Your task to perform on an android device: turn on the 12-hour format for clock Image 0: 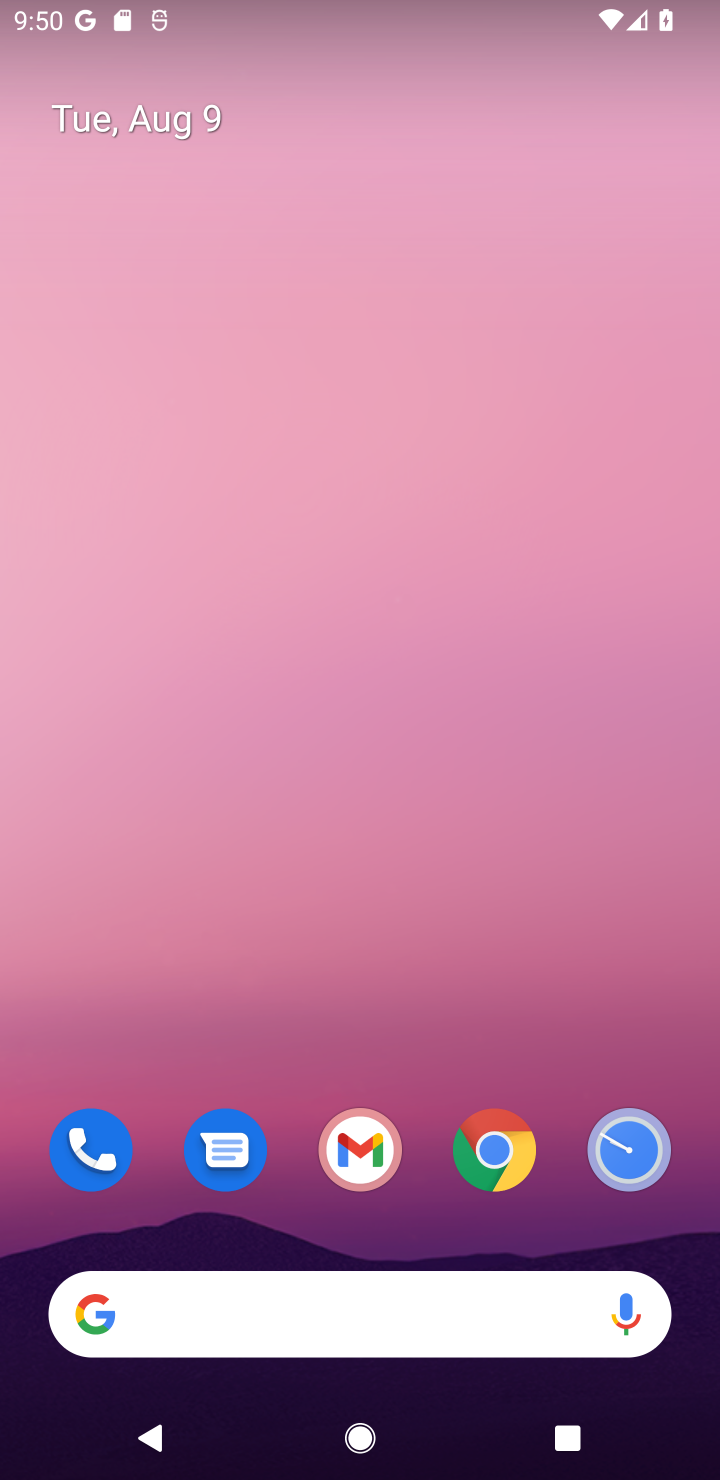
Step 0: drag from (262, 1143) to (444, 178)
Your task to perform on an android device: turn on the 12-hour format for clock Image 1: 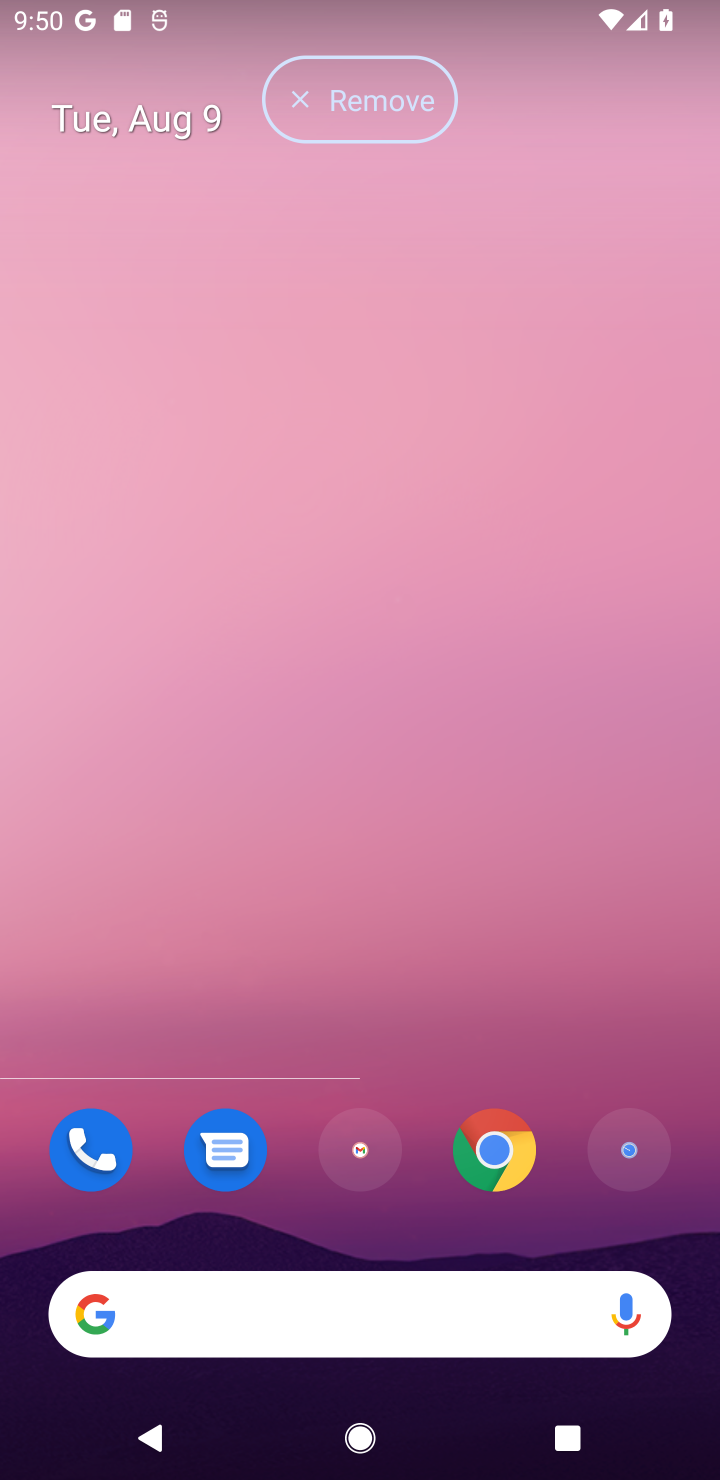
Step 1: click (333, 482)
Your task to perform on an android device: turn on the 12-hour format for clock Image 2: 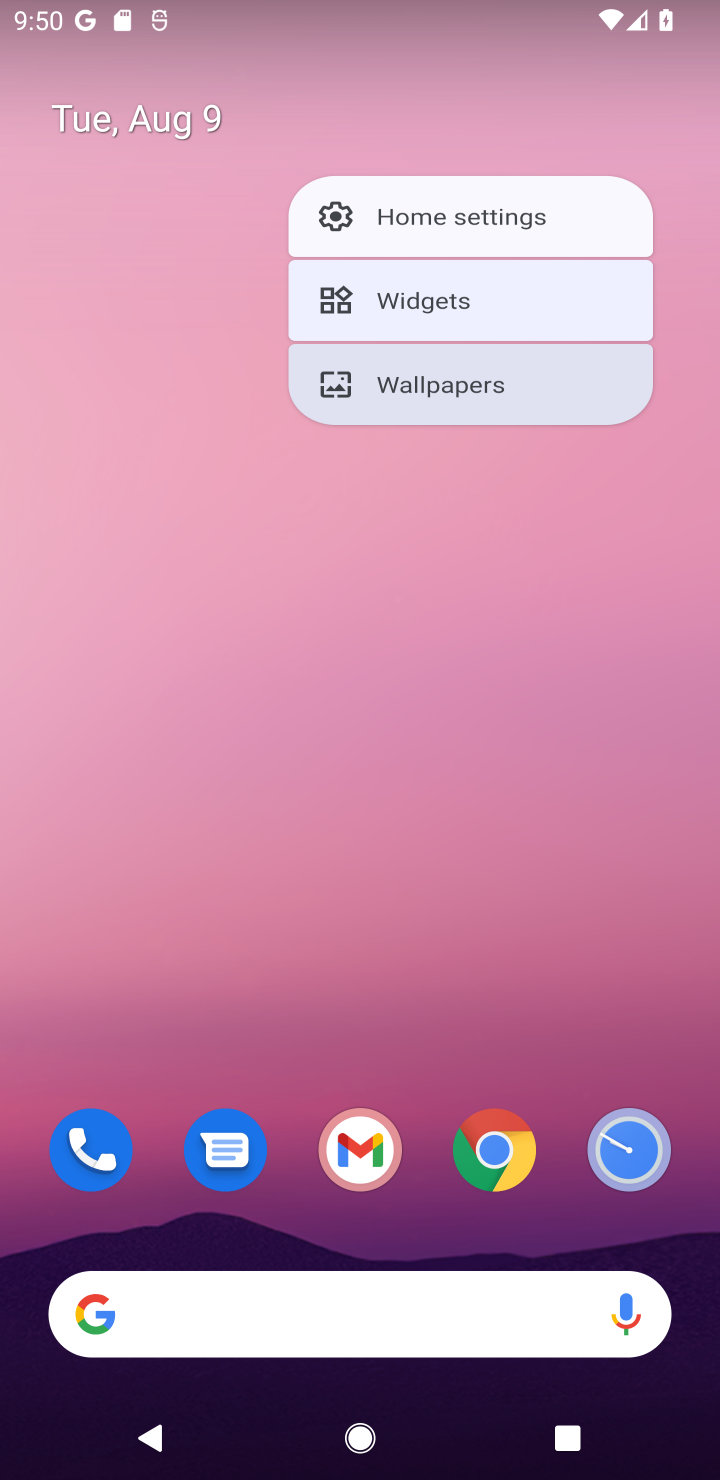
Step 2: drag from (308, 1255) to (461, 275)
Your task to perform on an android device: turn on the 12-hour format for clock Image 3: 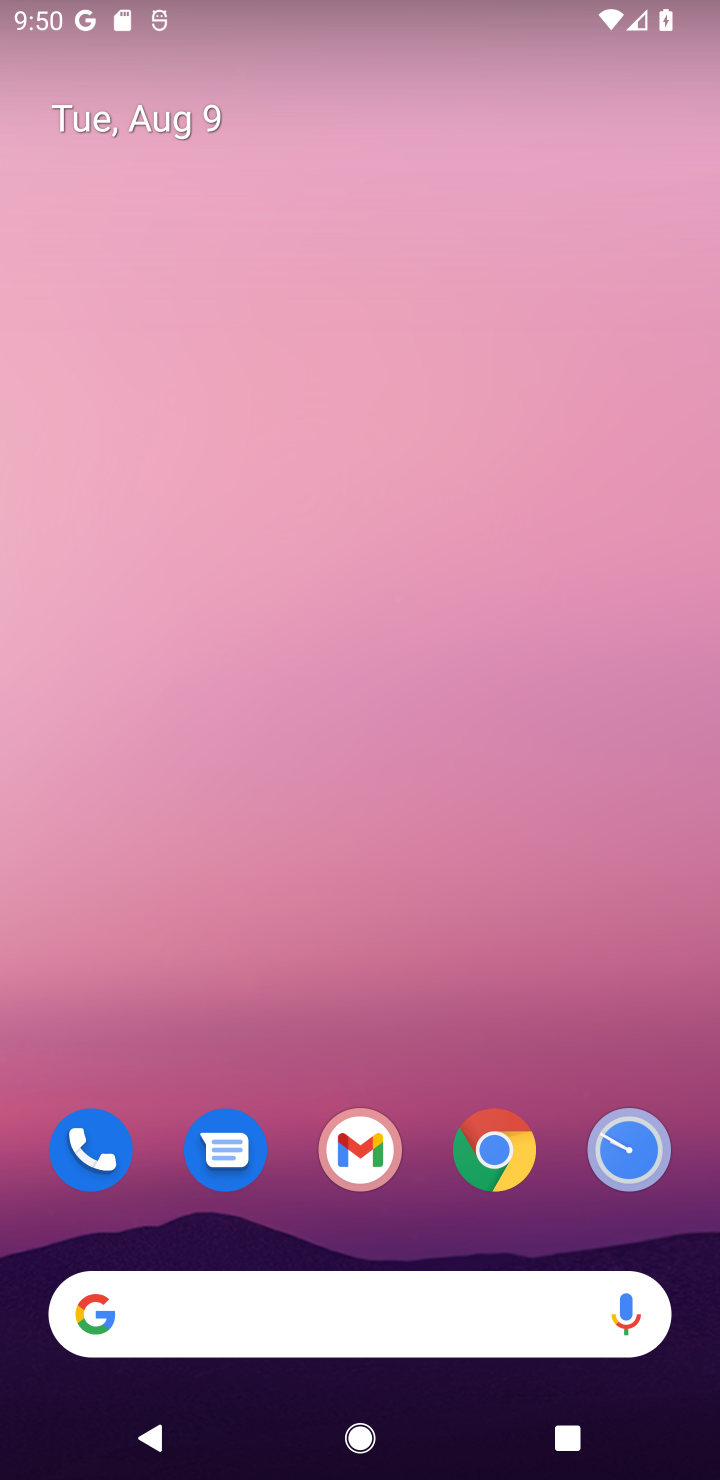
Step 3: drag from (363, 1121) to (418, 302)
Your task to perform on an android device: turn on the 12-hour format for clock Image 4: 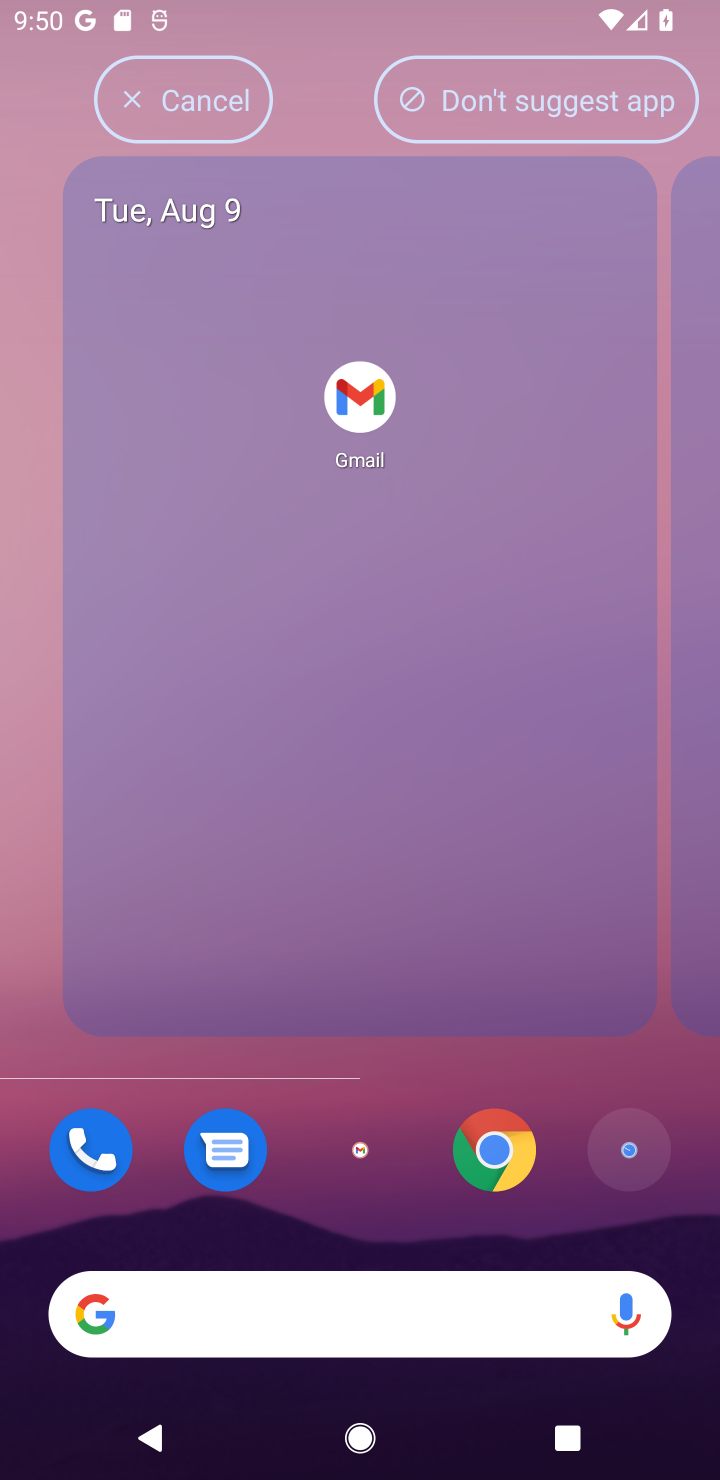
Step 4: click (319, 403)
Your task to perform on an android device: turn on the 12-hour format for clock Image 5: 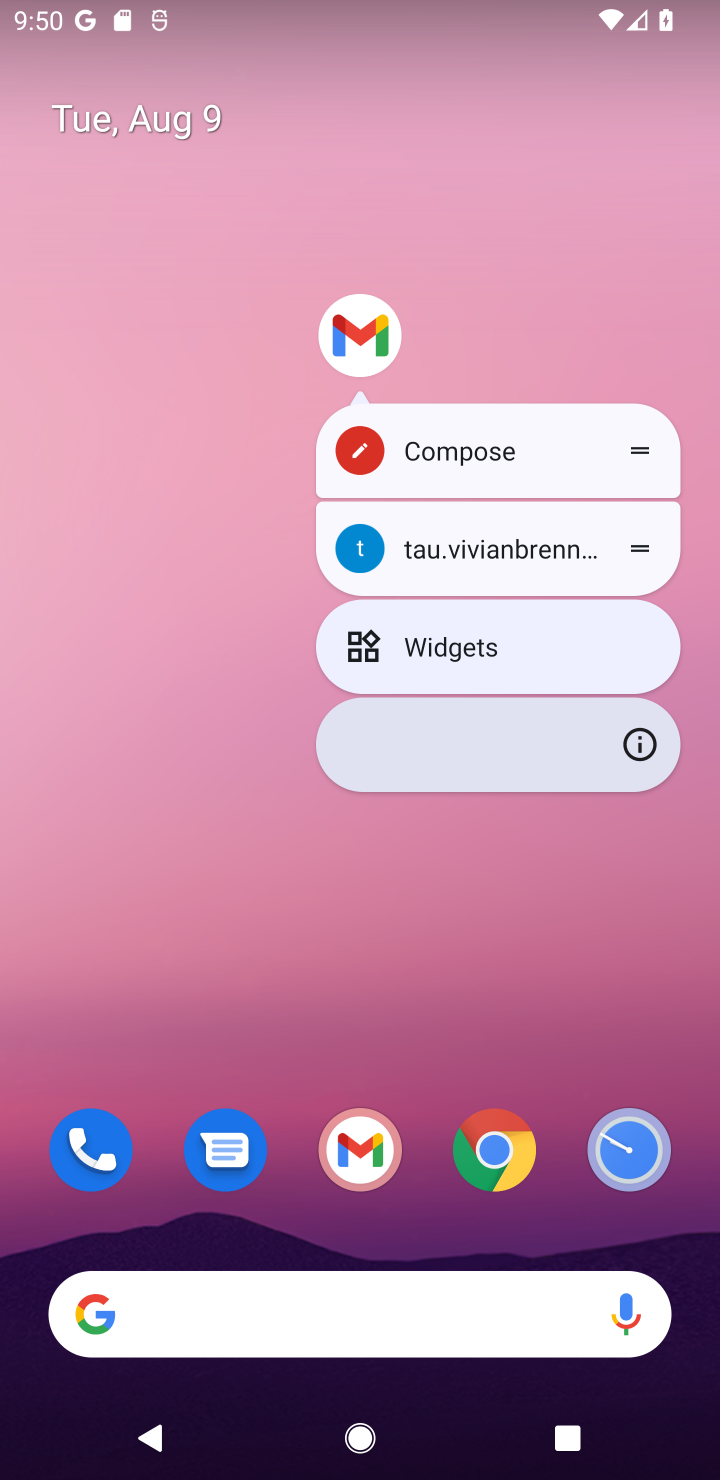
Step 5: click (256, 957)
Your task to perform on an android device: turn on the 12-hour format for clock Image 6: 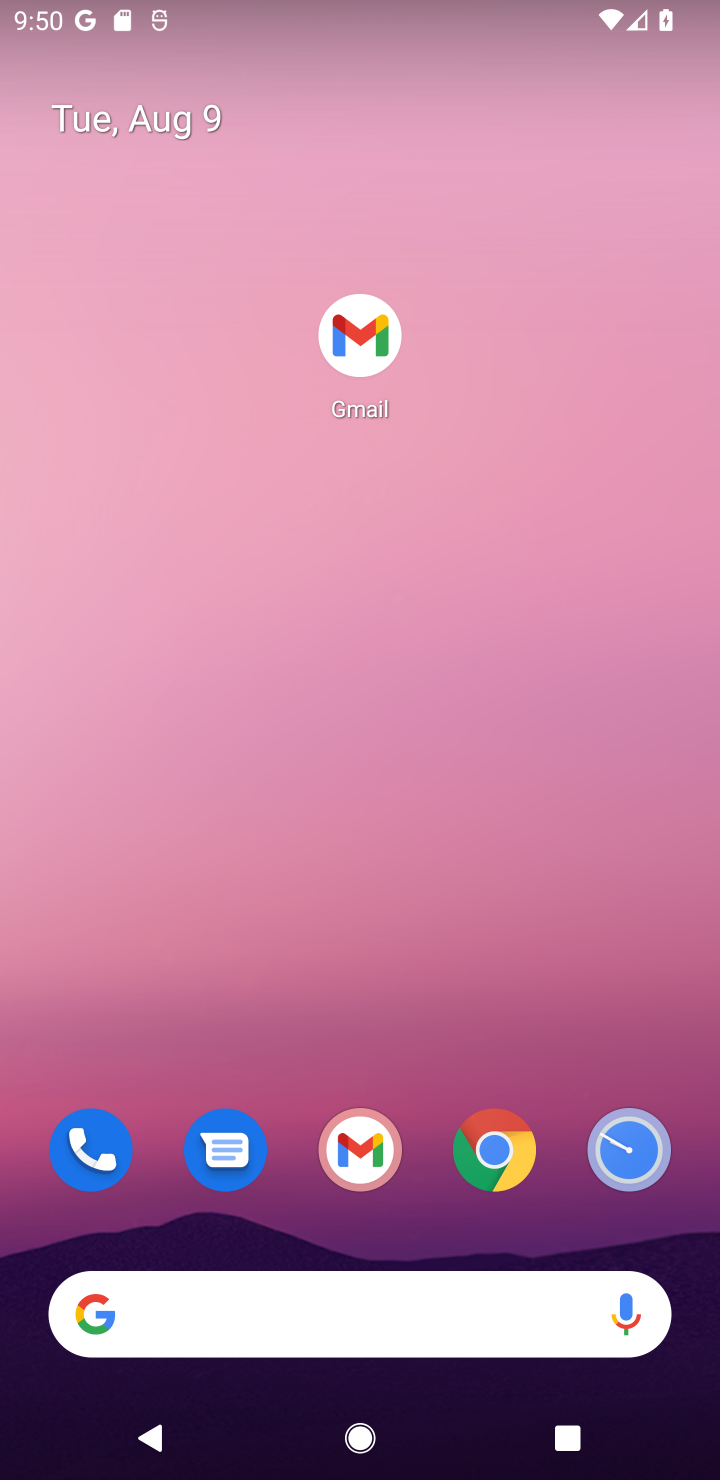
Step 6: drag from (376, 1229) to (366, 238)
Your task to perform on an android device: turn on the 12-hour format for clock Image 7: 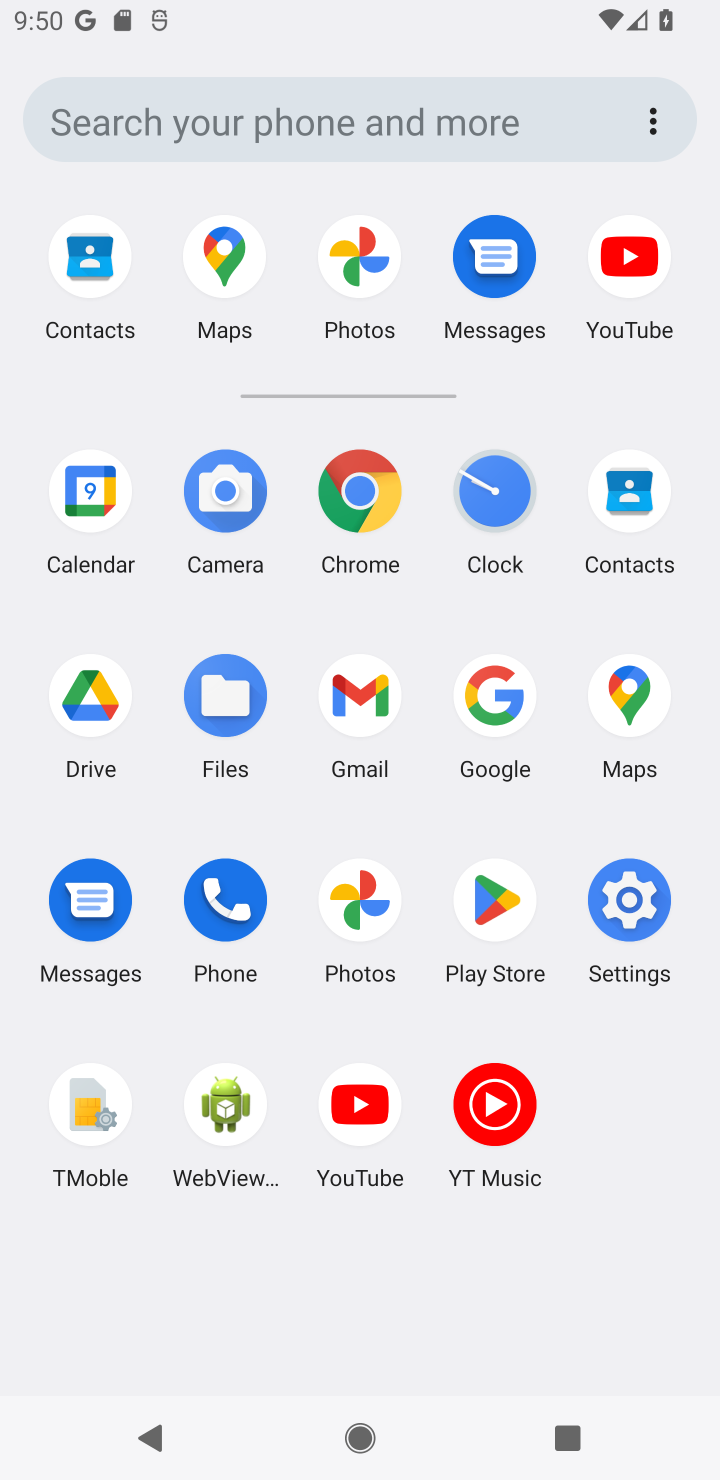
Step 7: click (466, 510)
Your task to perform on an android device: turn on the 12-hour format for clock Image 8: 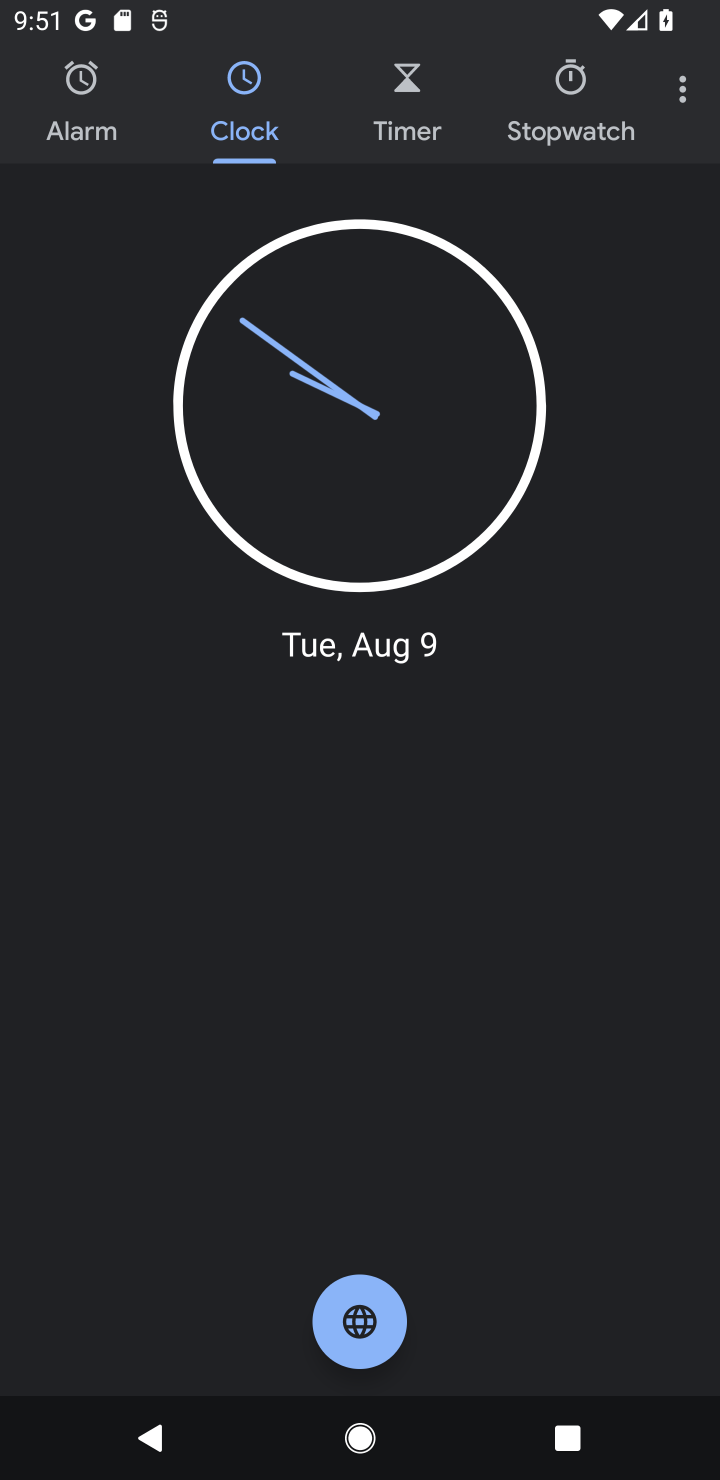
Step 8: click (680, 91)
Your task to perform on an android device: turn on the 12-hour format for clock Image 9: 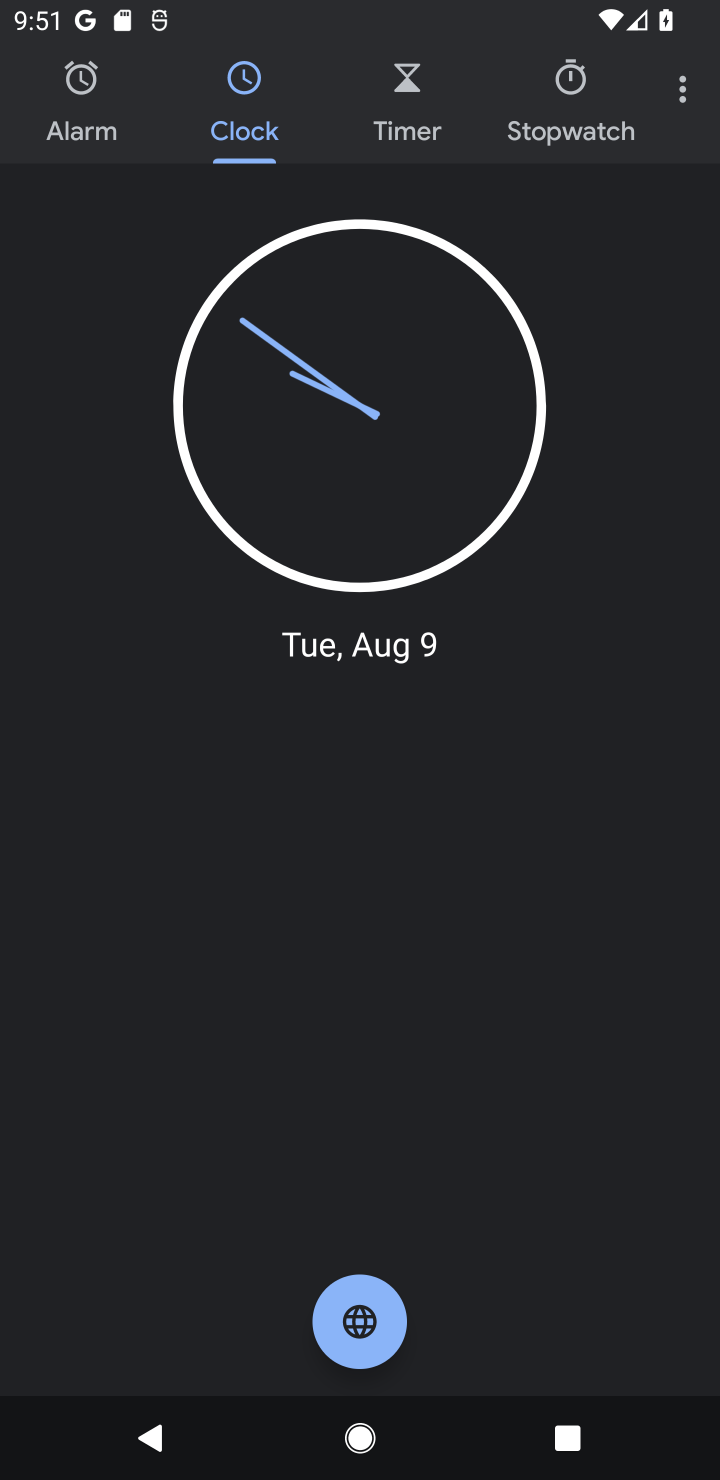
Step 9: click (680, 107)
Your task to perform on an android device: turn on the 12-hour format for clock Image 10: 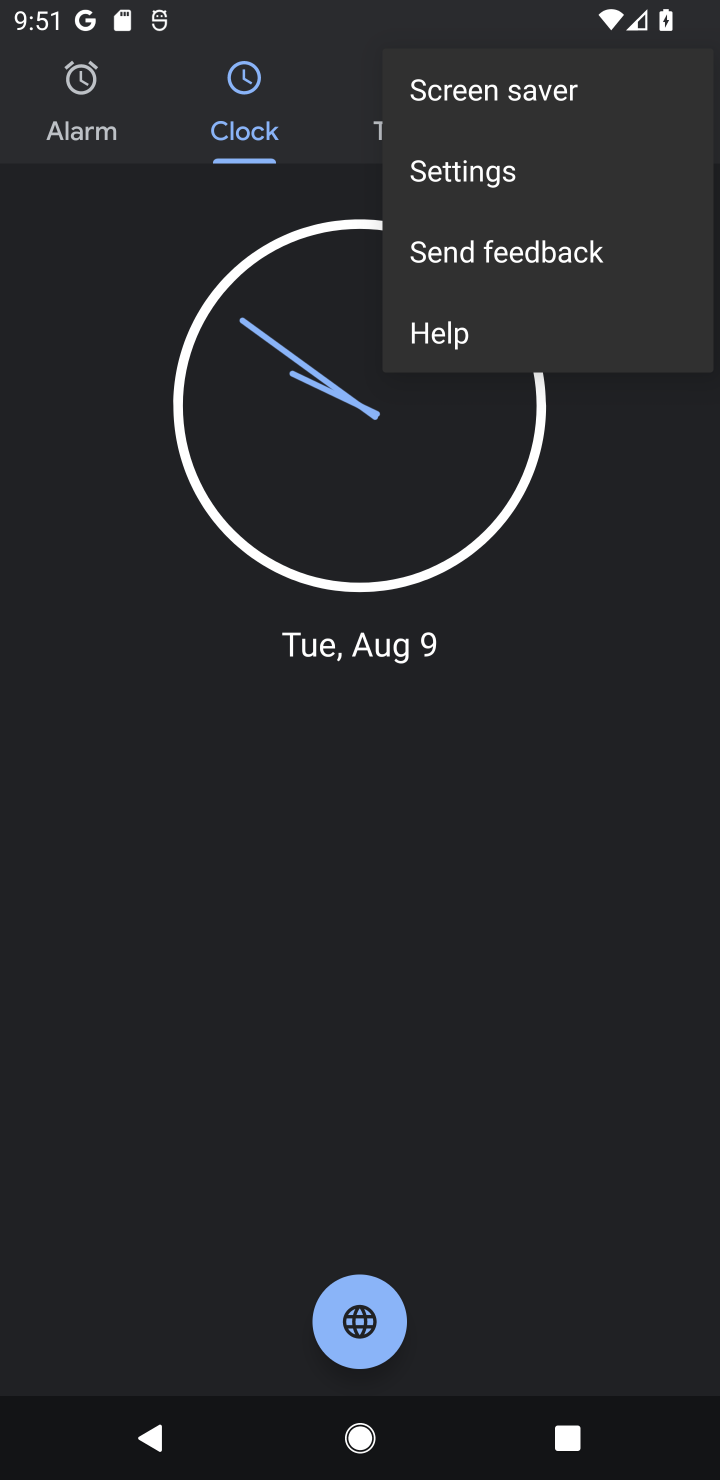
Step 10: click (532, 195)
Your task to perform on an android device: turn on the 12-hour format for clock Image 11: 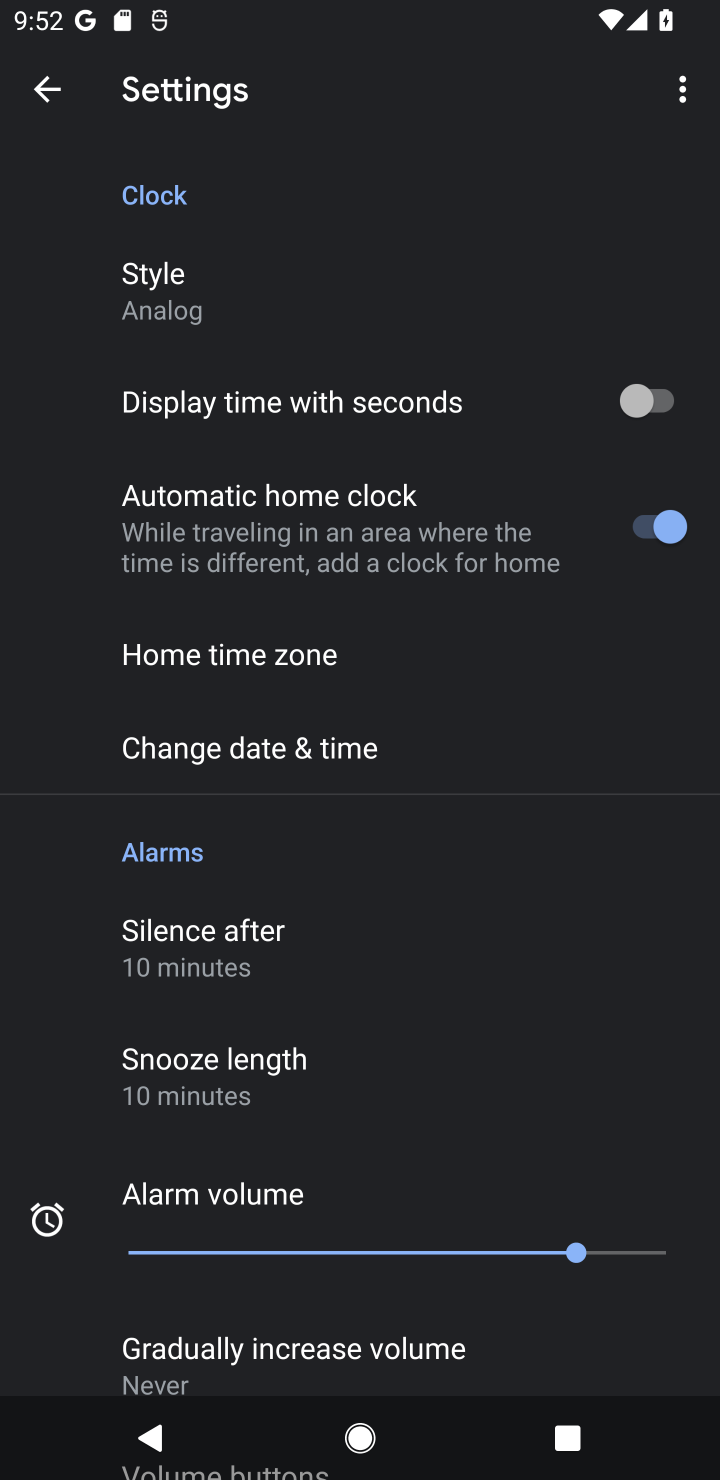
Step 11: click (288, 753)
Your task to perform on an android device: turn on the 12-hour format for clock Image 12: 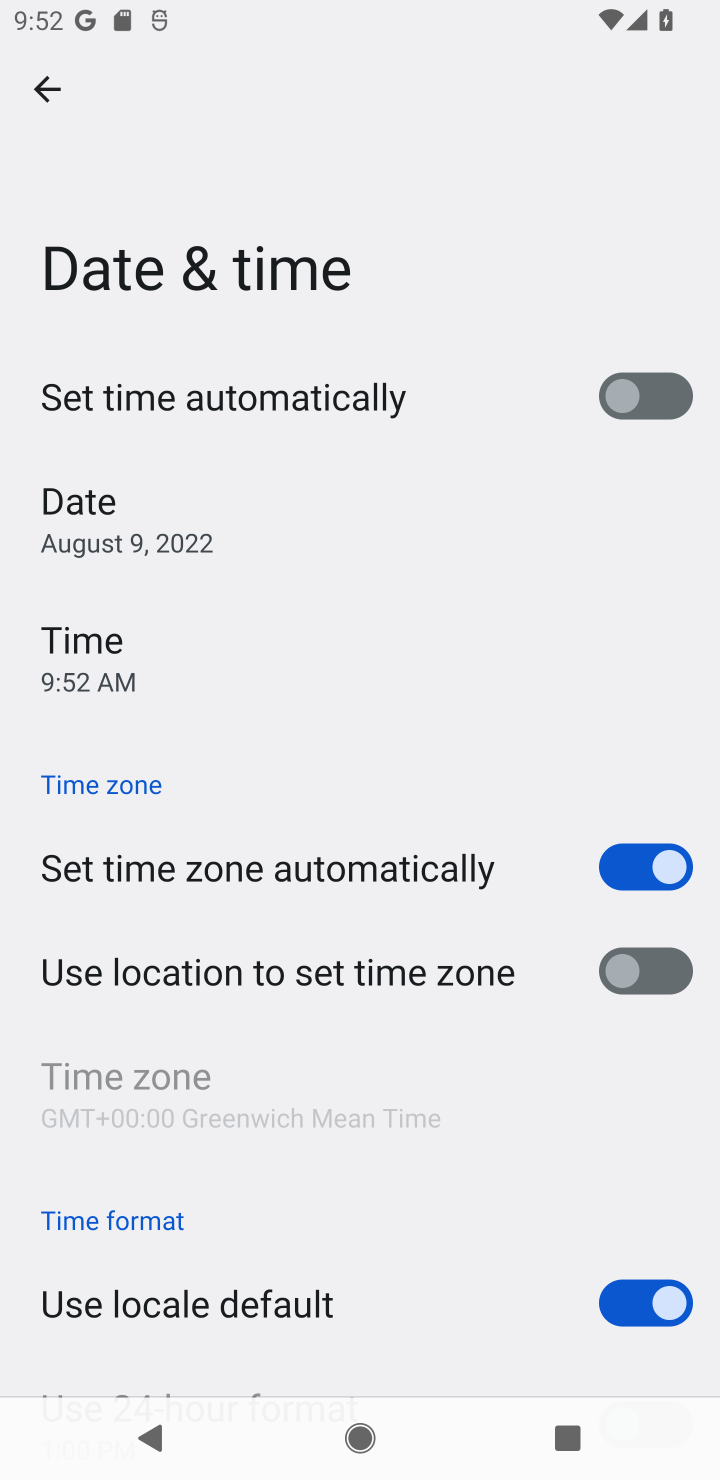
Step 12: task complete